Your task to perform on an android device: Go to location settings Image 0: 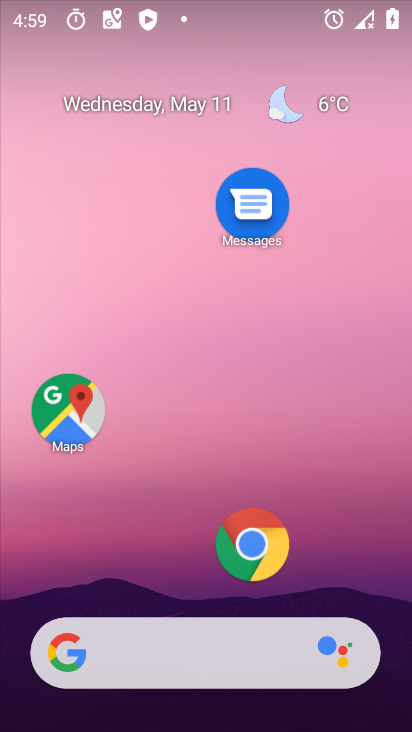
Step 0: drag from (229, 159) to (287, 27)
Your task to perform on an android device: Go to location settings Image 1: 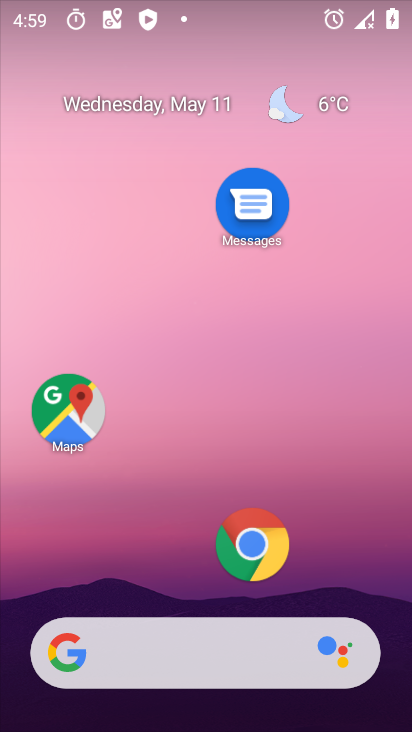
Step 1: drag from (238, 520) to (285, 14)
Your task to perform on an android device: Go to location settings Image 2: 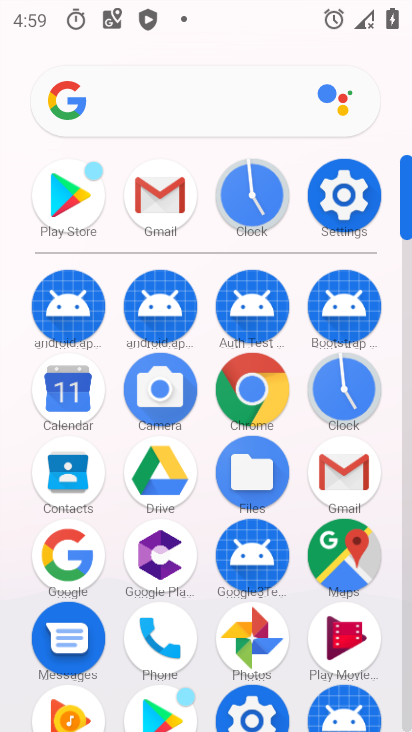
Step 2: click (347, 176)
Your task to perform on an android device: Go to location settings Image 3: 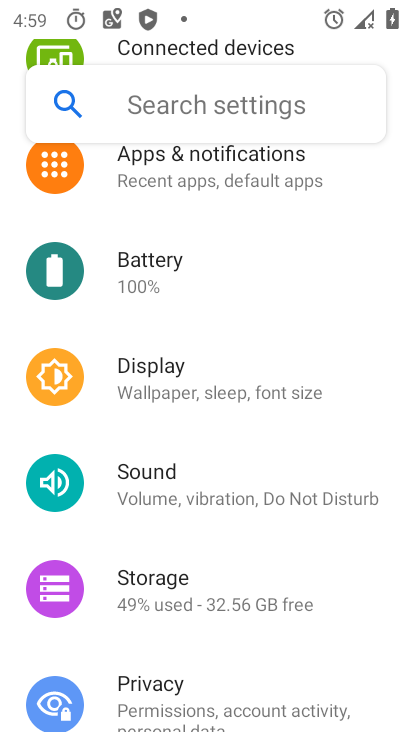
Step 3: drag from (177, 658) to (295, 130)
Your task to perform on an android device: Go to location settings Image 4: 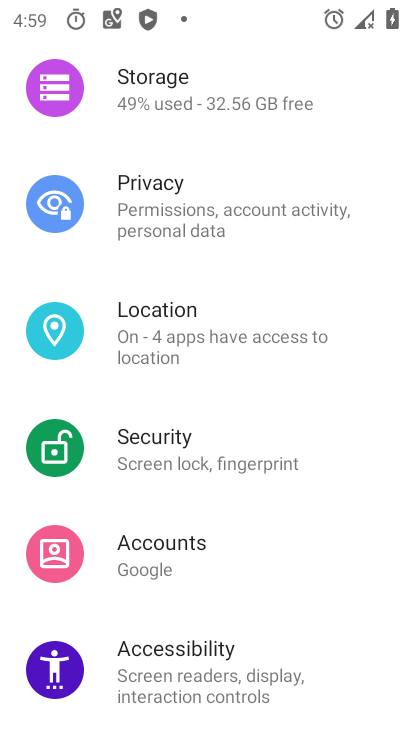
Step 4: click (197, 323)
Your task to perform on an android device: Go to location settings Image 5: 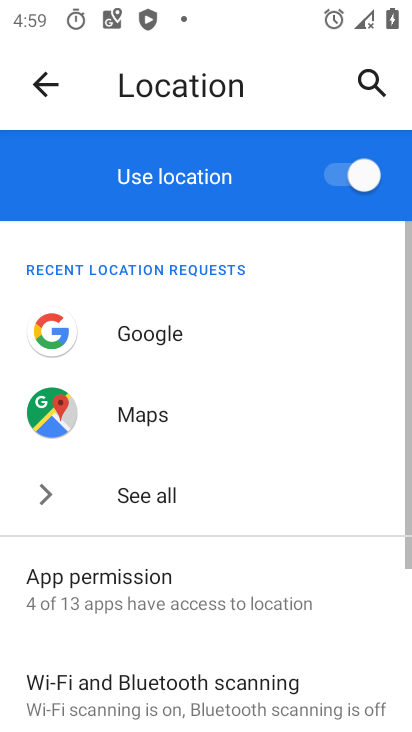
Step 5: task complete